Your task to perform on an android device: Open Chrome and go to settings Image 0: 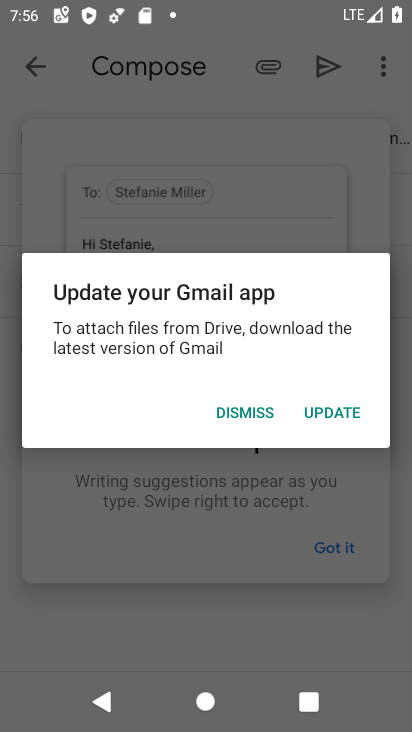
Step 0: press home button
Your task to perform on an android device: Open Chrome and go to settings Image 1: 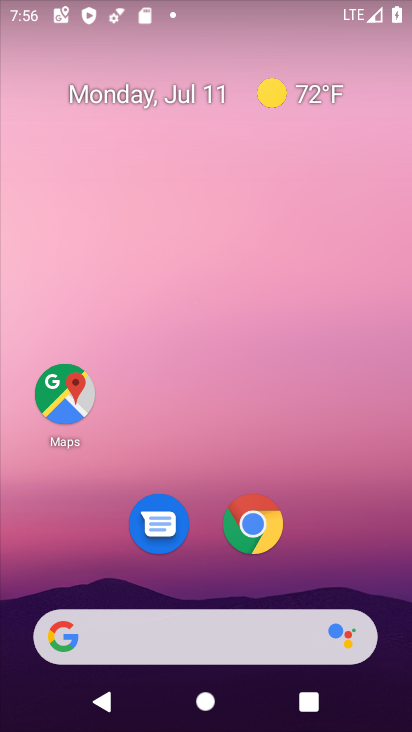
Step 1: click (258, 521)
Your task to perform on an android device: Open Chrome and go to settings Image 2: 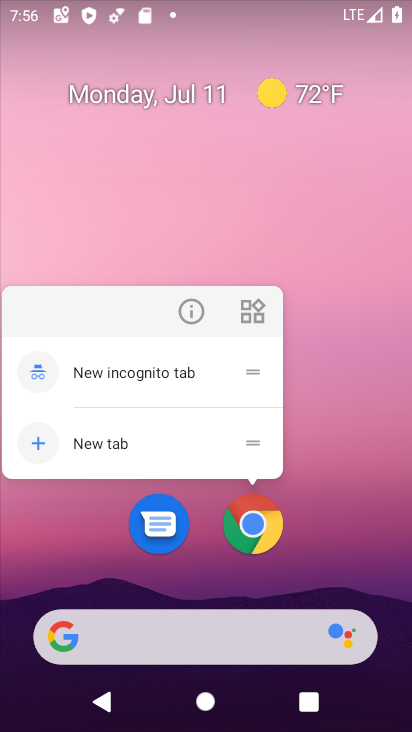
Step 2: click (258, 520)
Your task to perform on an android device: Open Chrome and go to settings Image 3: 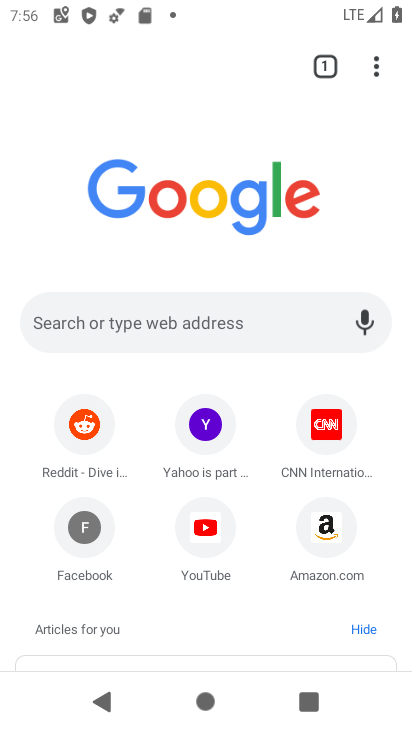
Step 3: click (376, 66)
Your task to perform on an android device: Open Chrome and go to settings Image 4: 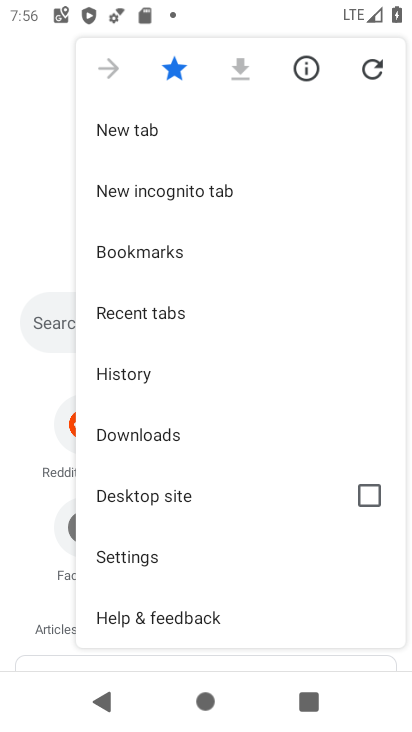
Step 4: click (147, 549)
Your task to perform on an android device: Open Chrome and go to settings Image 5: 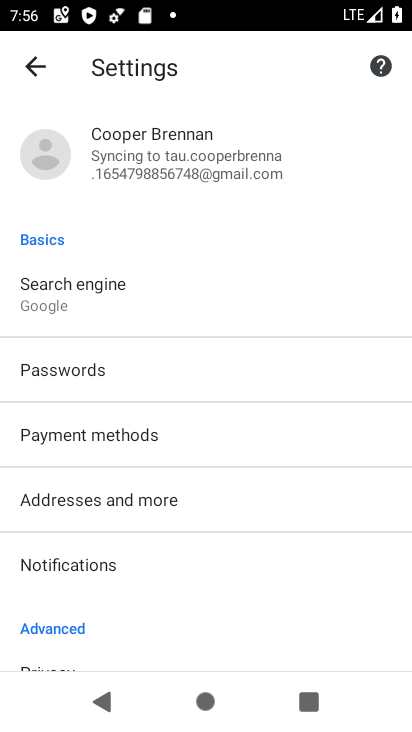
Step 5: task complete